Your task to perform on an android device: stop showing notifications on the lock screen Image 0: 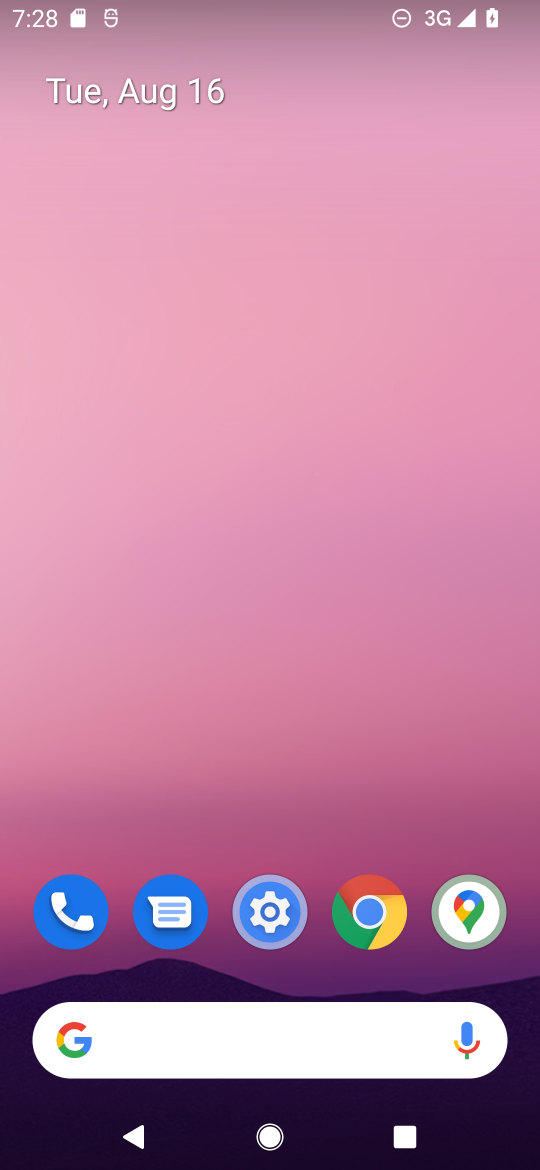
Step 0: click (271, 913)
Your task to perform on an android device: stop showing notifications on the lock screen Image 1: 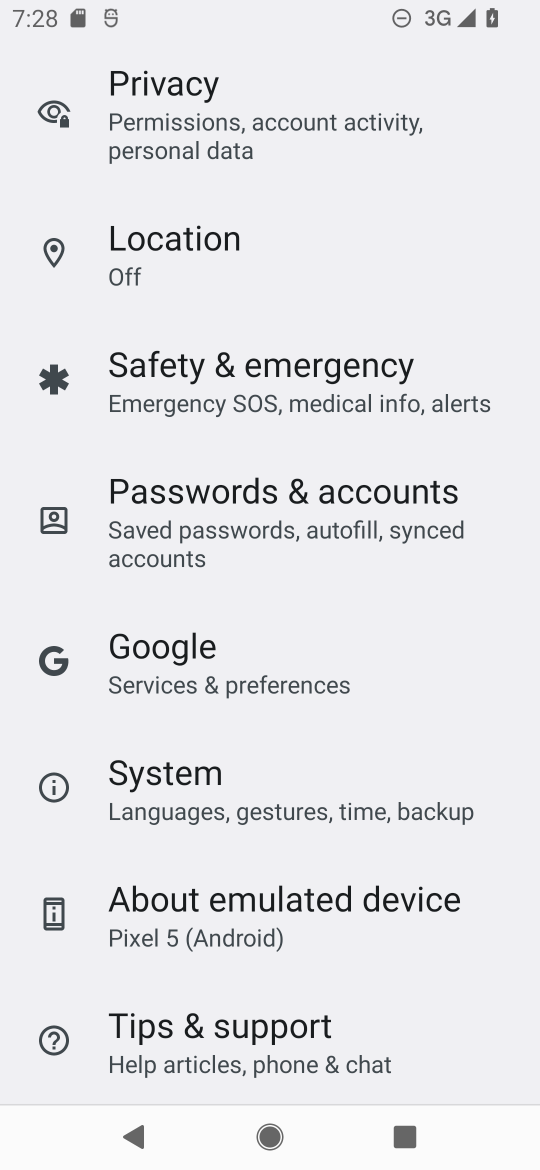
Step 1: drag from (453, 254) to (453, 562)
Your task to perform on an android device: stop showing notifications on the lock screen Image 2: 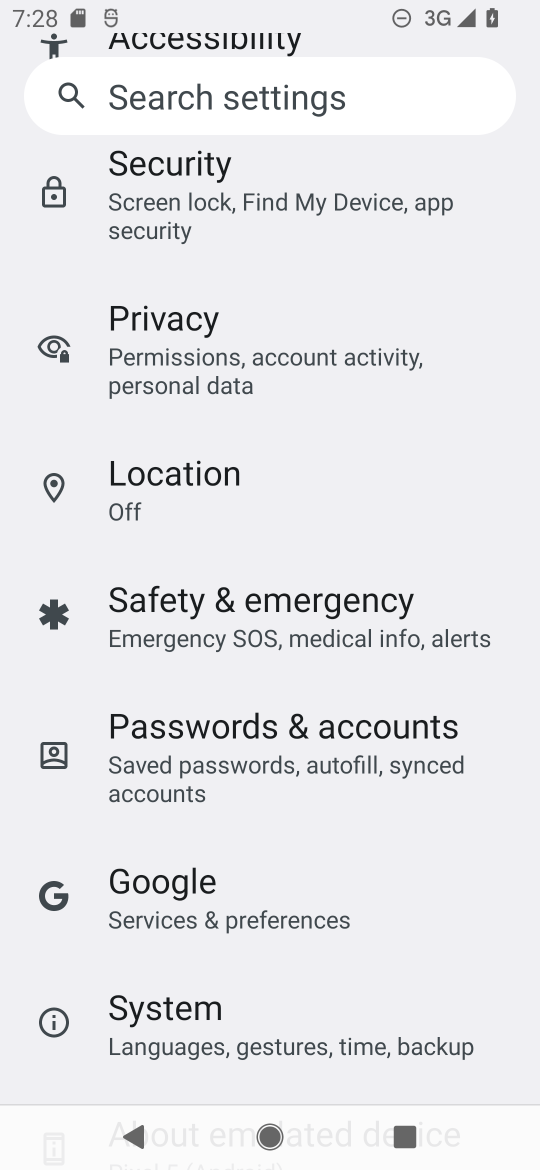
Step 2: drag from (453, 294) to (468, 654)
Your task to perform on an android device: stop showing notifications on the lock screen Image 3: 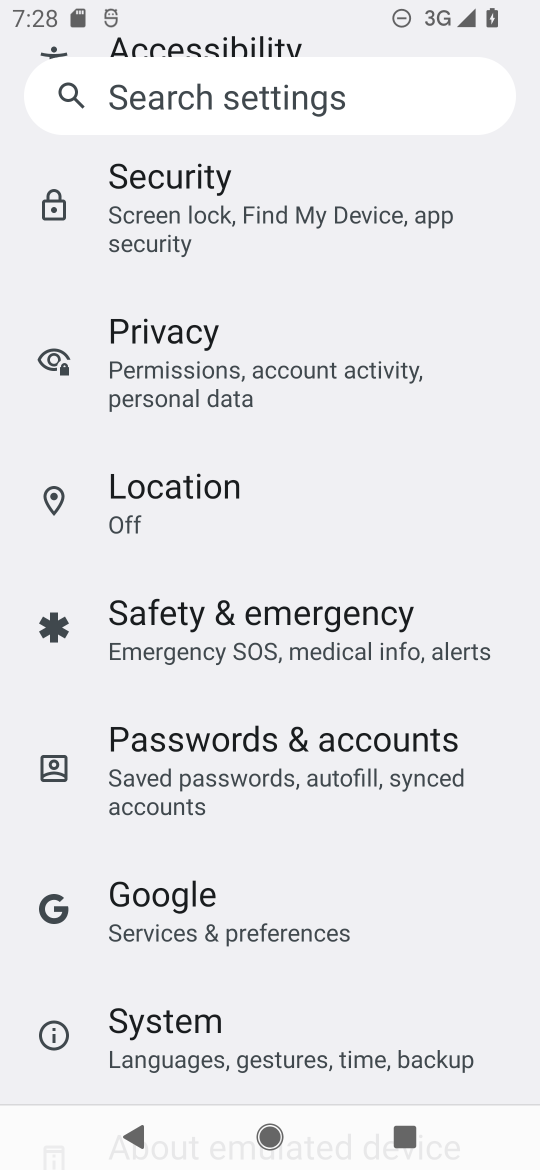
Step 3: drag from (463, 406) to (494, 747)
Your task to perform on an android device: stop showing notifications on the lock screen Image 4: 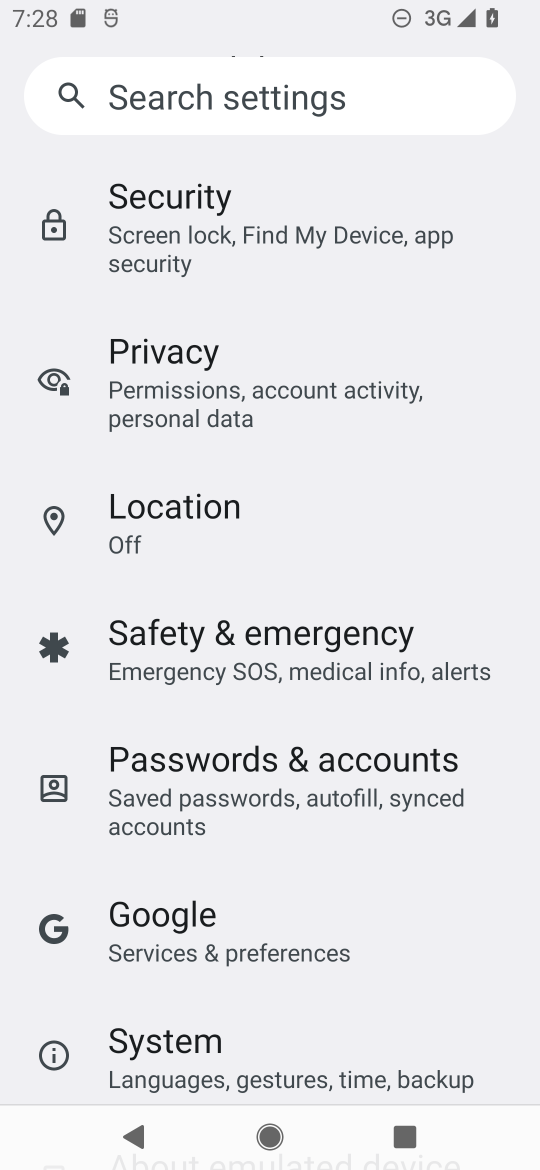
Step 4: drag from (478, 262) to (502, 643)
Your task to perform on an android device: stop showing notifications on the lock screen Image 5: 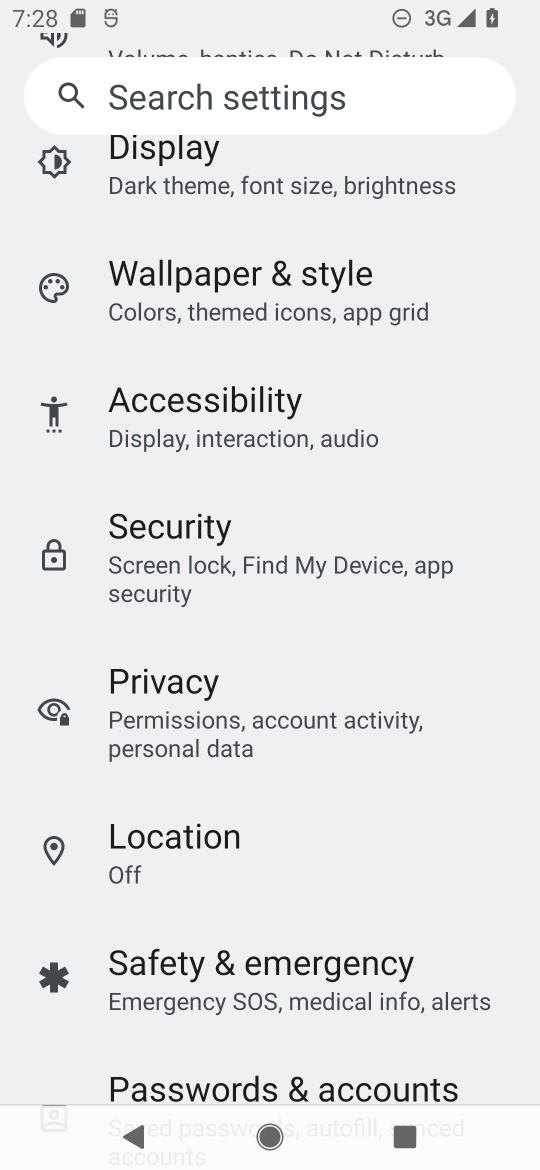
Step 5: drag from (433, 270) to (437, 753)
Your task to perform on an android device: stop showing notifications on the lock screen Image 6: 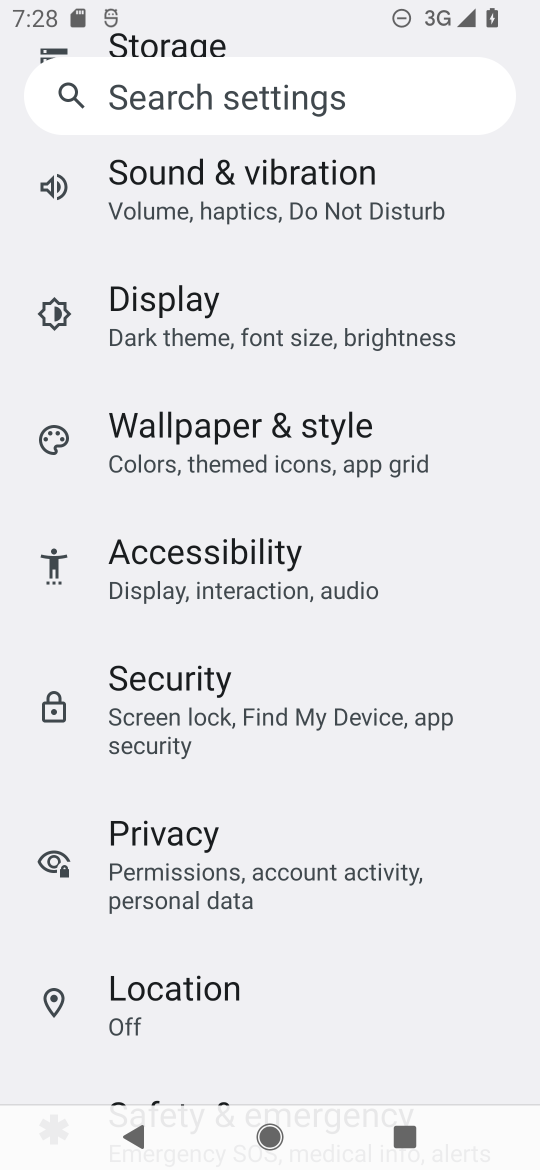
Step 6: drag from (459, 265) to (489, 784)
Your task to perform on an android device: stop showing notifications on the lock screen Image 7: 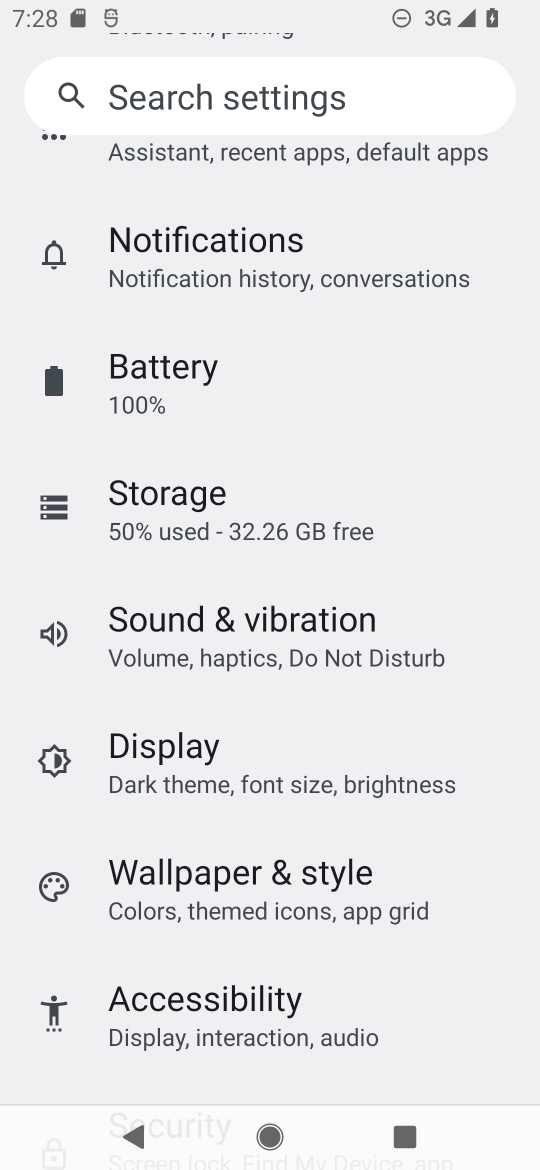
Step 7: click (162, 247)
Your task to perform on an android device: stop showing notifications on the lock screen Image 8: 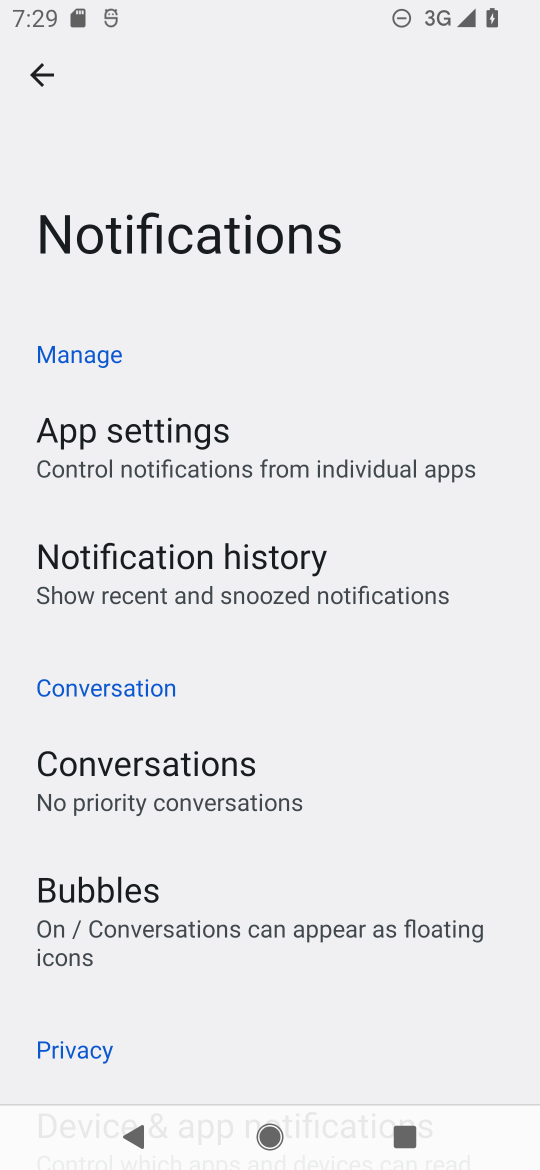
Step 8: drag from (366, 846) to (376, 263)
Your task to perform on an android device: stop showing notifications on the lock screen Image 9: 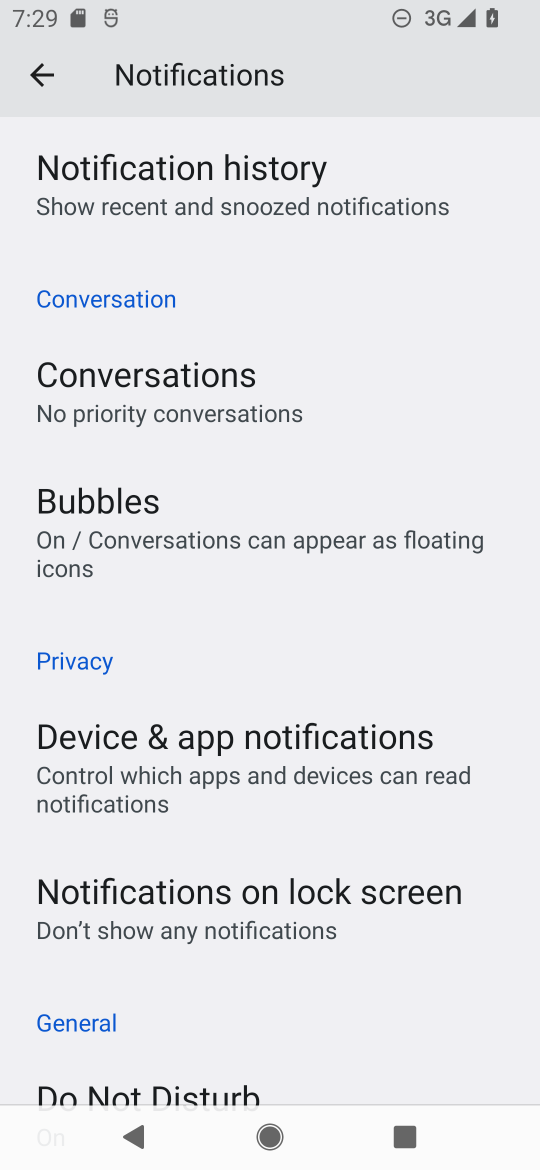
Step 9: click (178, 915)
Your task to perform on an android device: stop showing notifications on the lock screen Image 10: 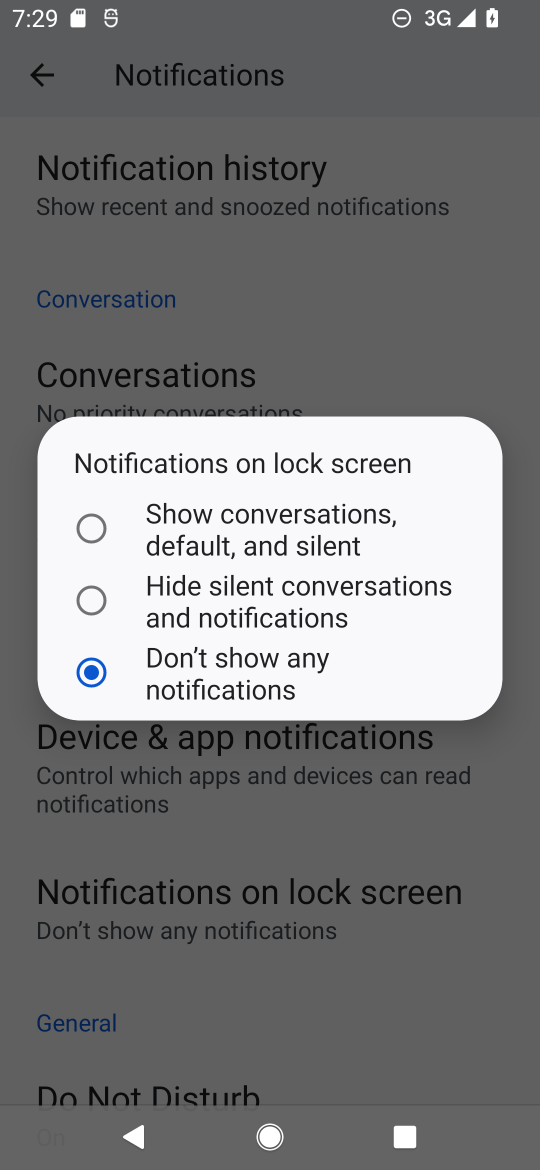
Step 10: task complete